Your task to perform on an android device: delete a single message in the gmail app Image 0: 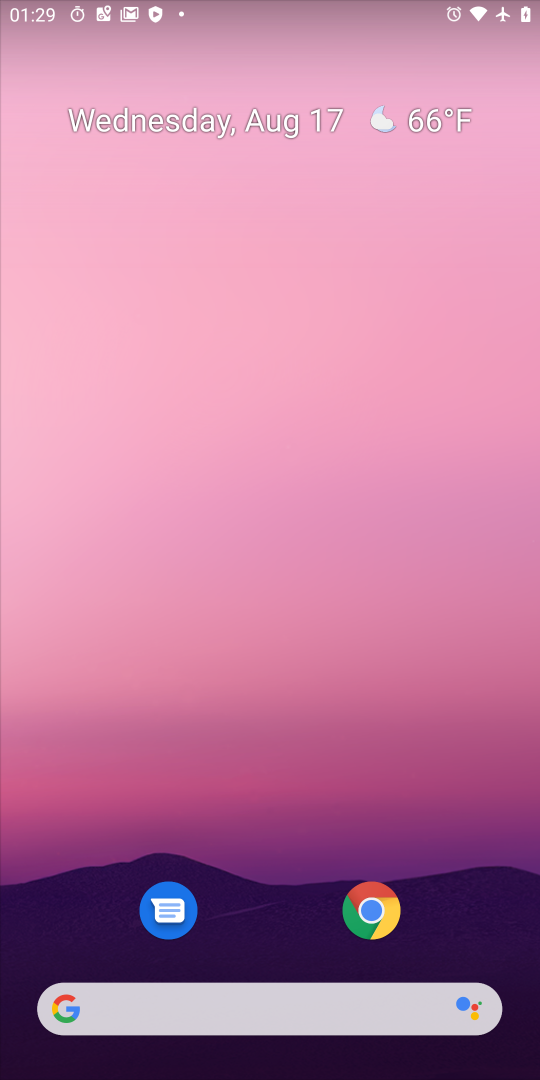
Step 0: drag from (273, 815) to (287, 231)
Your task to perform on an android device: delete a single message in the gmail app Image 1: 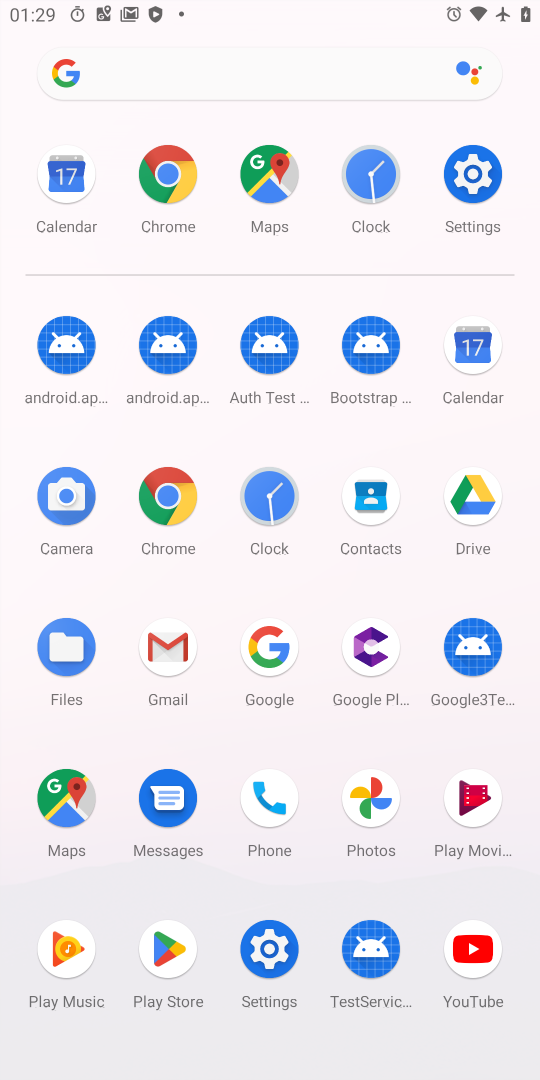
Step 1: click (176, 648)
Your task to perform on an android device: delete a single message in the gmail app Image 2: 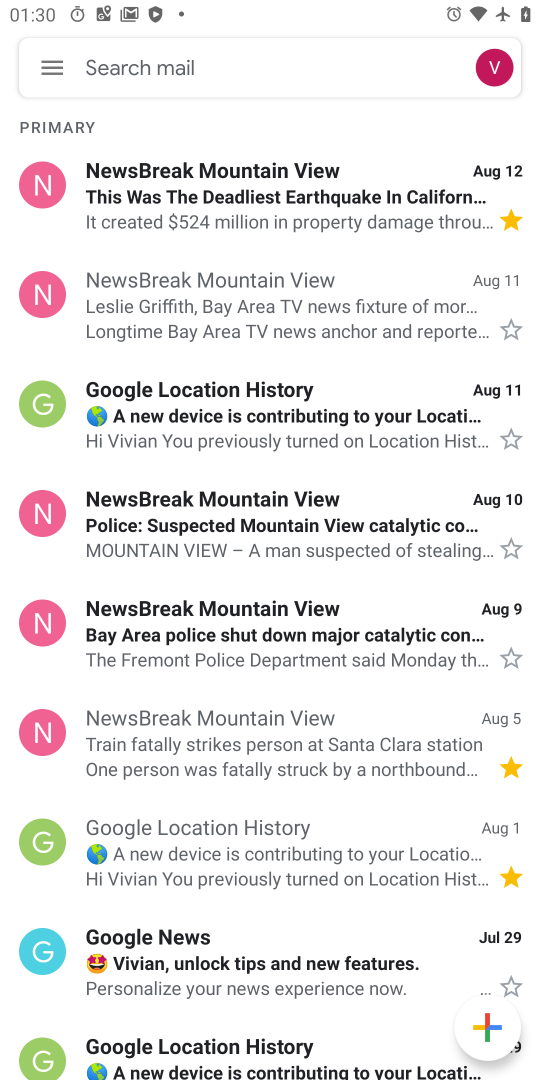
Step 2: click (239, 284)
Your task to perform on an android device: delete a single message in the gmail app Image 3: 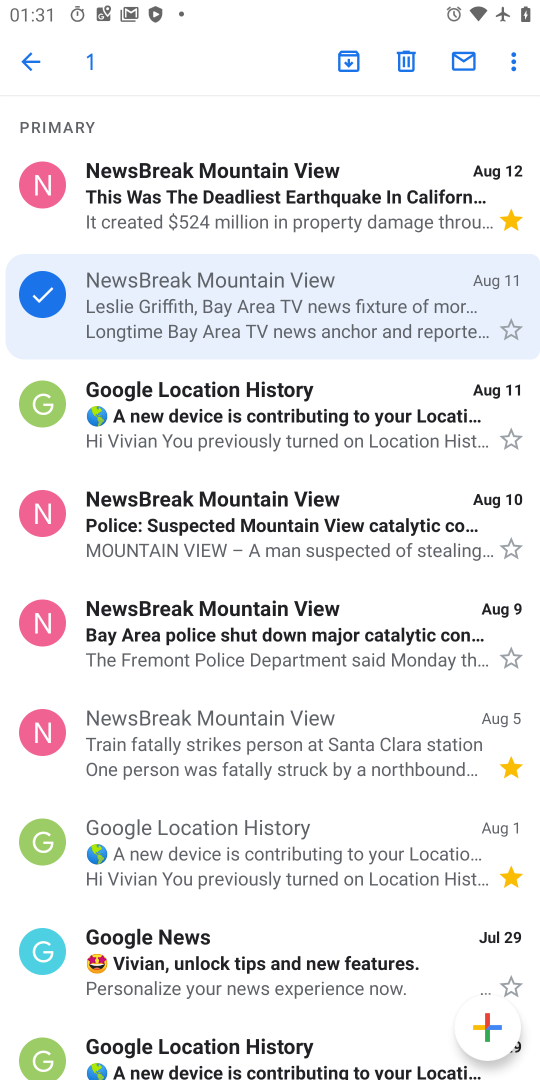
Step 3: click (398, 35)
Your task to perform on an android device: delete a single message in the gmail app Image 4: 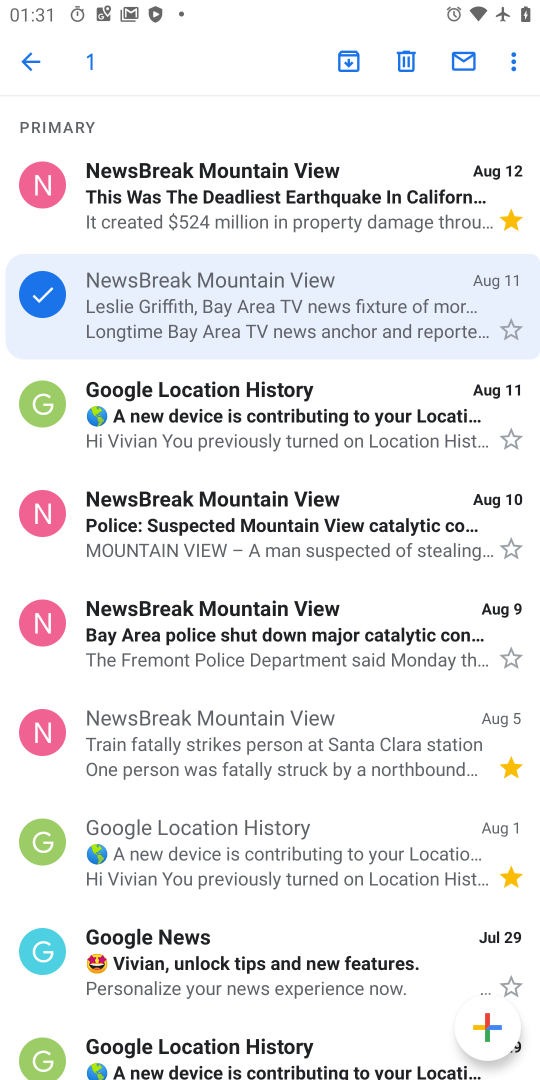
Step 4: click (406, 55)
Your task to perform on an android device: delete a single message in the gmail app Image 5: 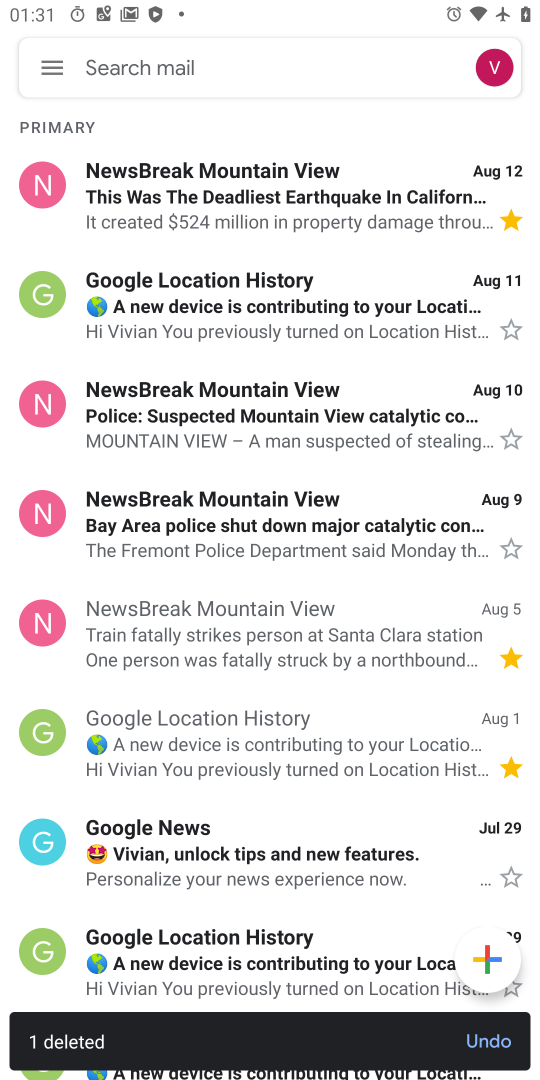
Step 5: task complete